Your task to perform on an android device: turn on priority inbox in the gmail app Image 0: 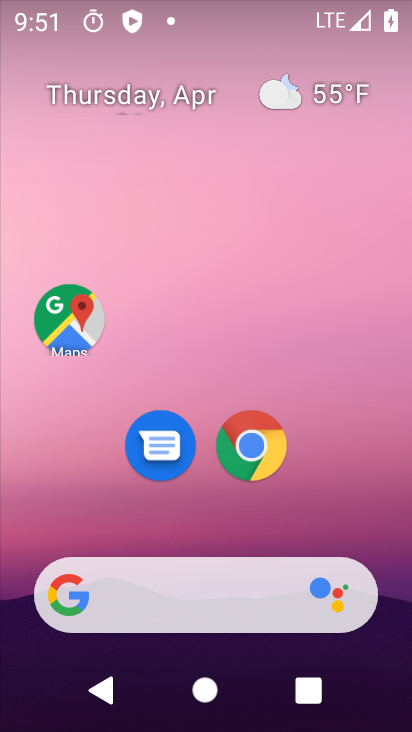
Step 0: drag from (390, 464) to (392, 4)
Your task to perform on an android device: turn on priority inbox in the gmail app Image 1: 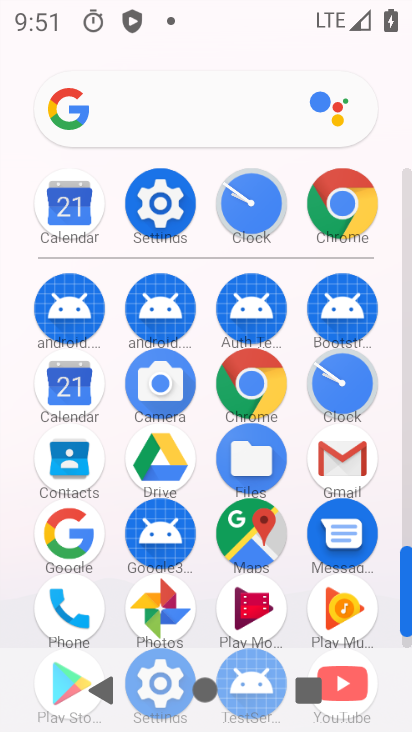
Step 1: click (336, 450)
Your task to perform on an android device: turn on priority inbox in the gmail app Image 2: 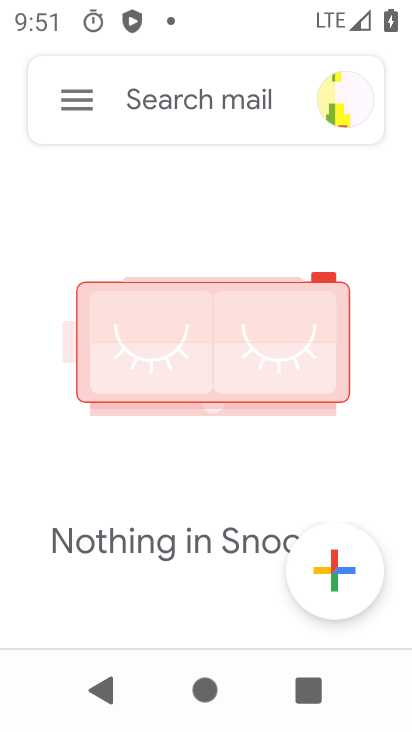
Step 2: click (81, 104)
Your task to perform on an android device: turn on priority inbox in the gmail app Image 3: 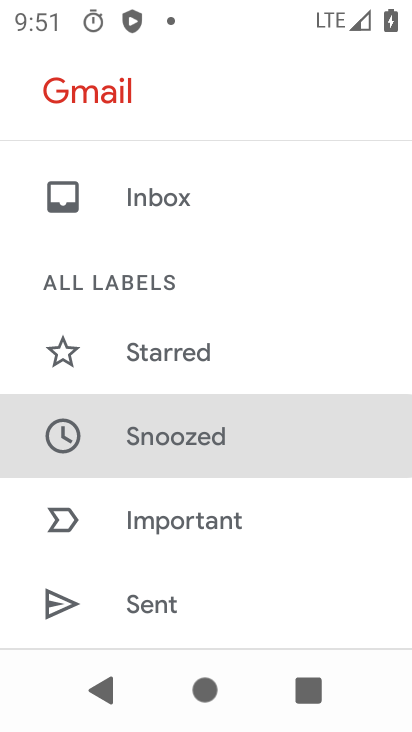
Step 3: drag from (287, 531) to (264, 23)
Your task to perform on an android device: turn on priority inbox in the gmail app Image 4: 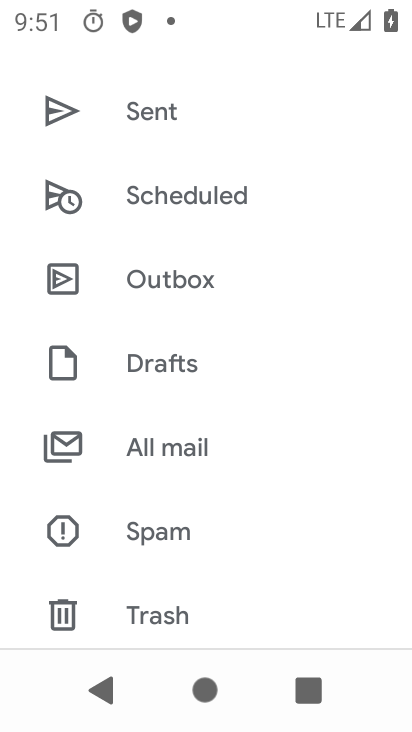
Step 4: drag from (324, 526) to (279, 53)
Your task to perform on an android device: turn on priority inbox in the gmail app Image 5: 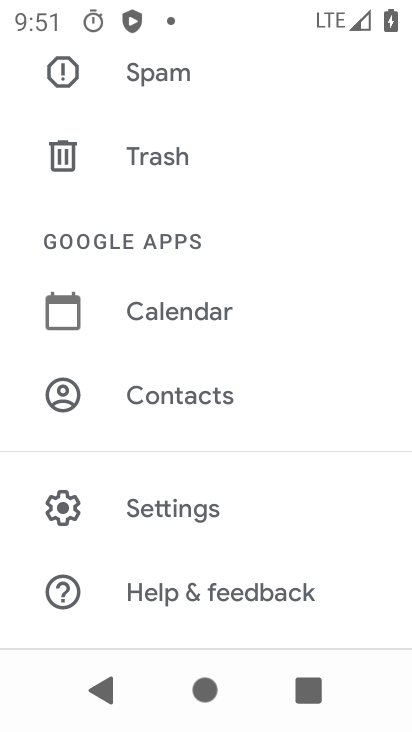
Step 5: drag from (236, 536) to (210, 166)
Your task to perform on an android device: turn on priority inbox in the gmail app Image 6: 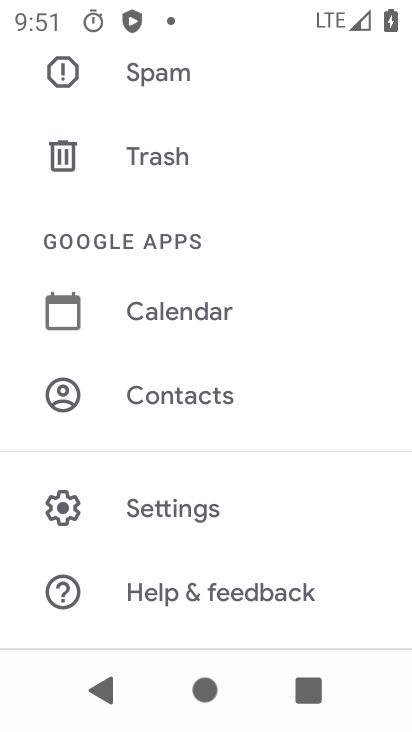
Step 6: click (163, 513)
Your task to perform on an android device: turn on priority inbox in the gmail app Image 7: 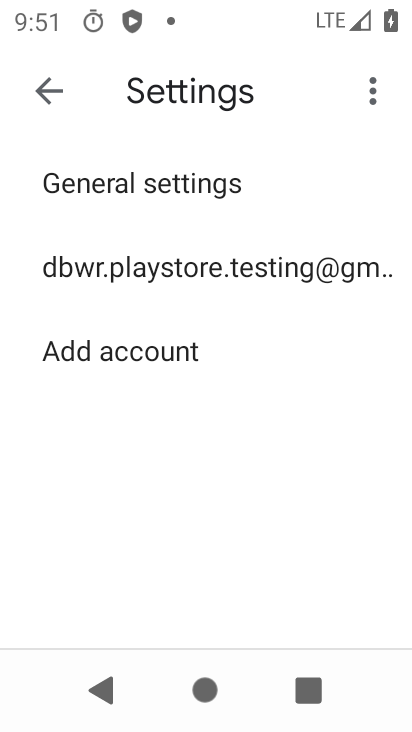
Step 7: click (164, 263)
Your task to perform on an android device: turn on priority inbox in the gmail app Image 8: 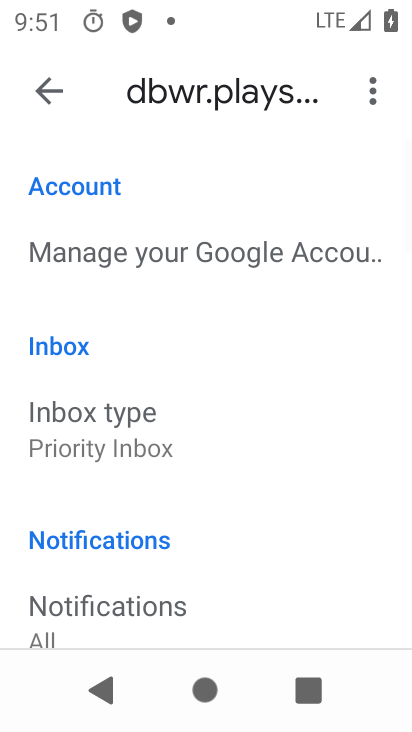
Step 8: click (107, 447)
Your task to perform on an android device: turn on priority inbox in the gmail app Image 9: 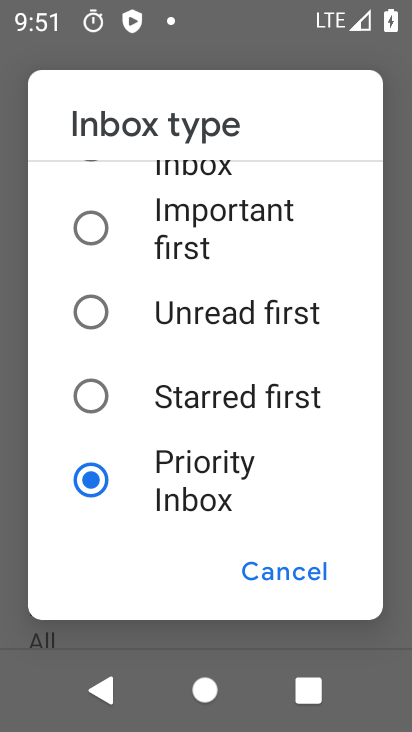
Step 9: task complete